Your task to perform on an android device: Open the map Image 0: 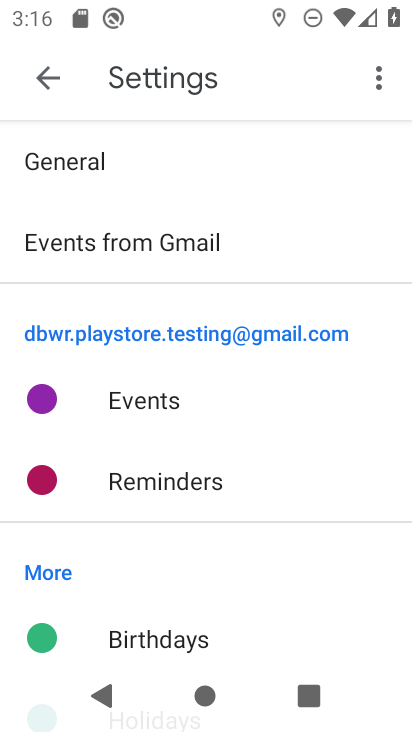
Step 0: press home button
Your task to perform on an android device: Open the map Image 1: 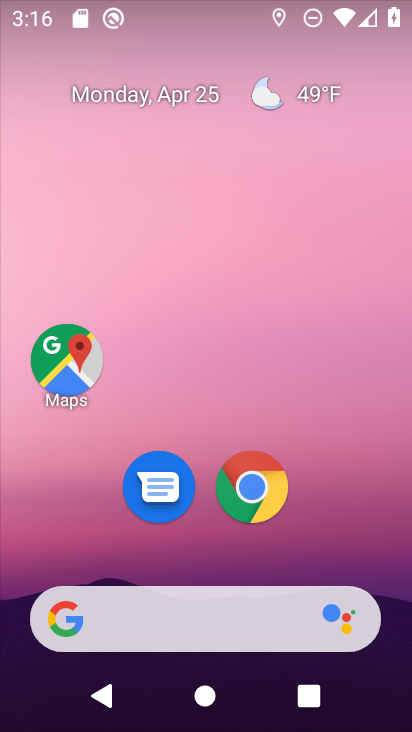
Step 1: click (60, 367)
Your task to perform on an android device: Open the map Image 2: 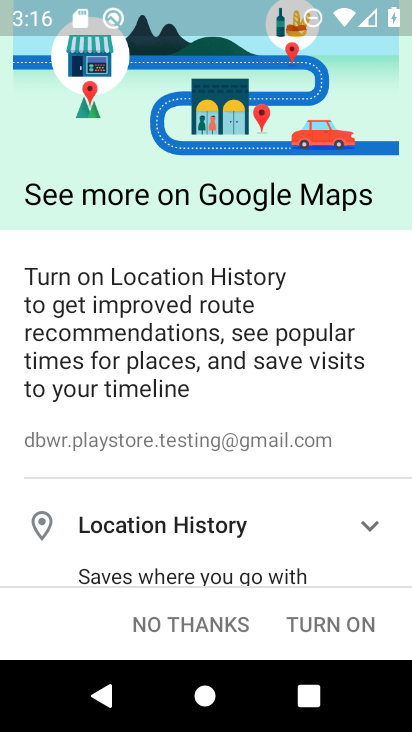
Step 2: click (201, 613)
Your task to perform on an android device: Open the map Image 3: 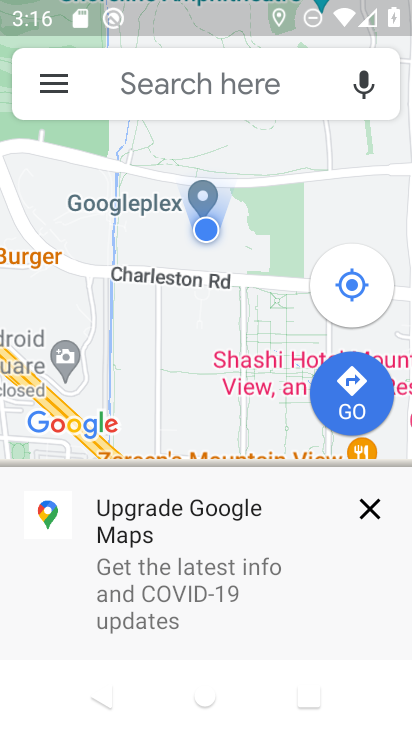
Step 3: task complete